Your task to perform on an android device: Open location settings Image 0: 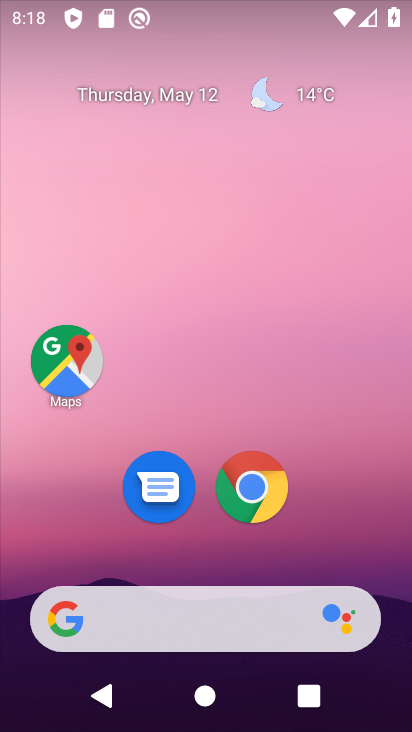
Step 0: press home button
Your task to perform on an android device: Open location settings Image 1: 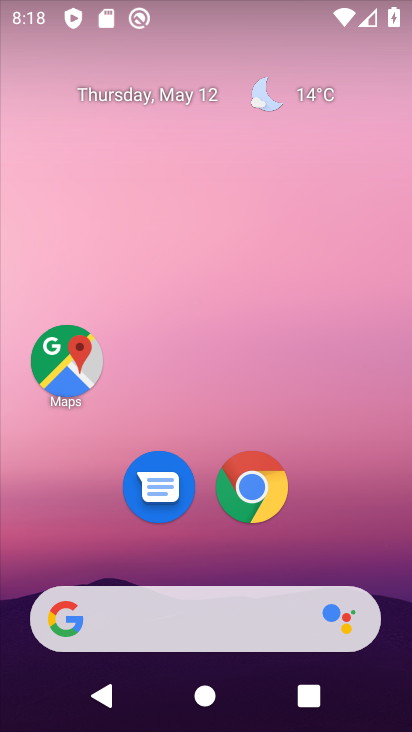
Step 1: drag from (2, 643) to (258, 192)
Your task to perform on an android device: Open location settings Image 2: 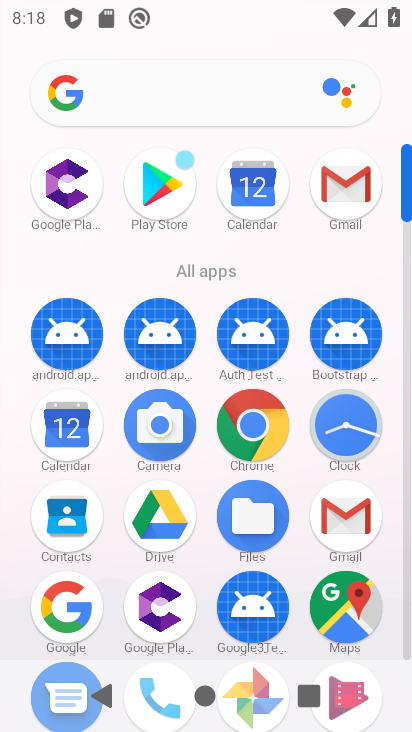
Step 2: drag from (6, 551) to (233, 186)
Your task to perform on an android device: Open location settings Image 3: 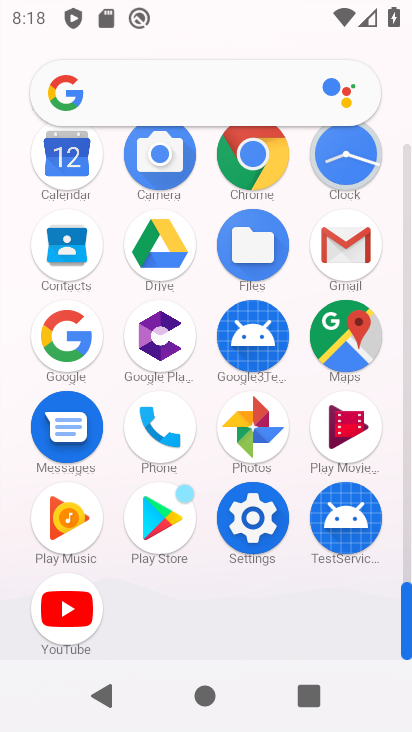
Step 3: click (270, 523)
Your task to perform on an android device: Open location settings Image 4: 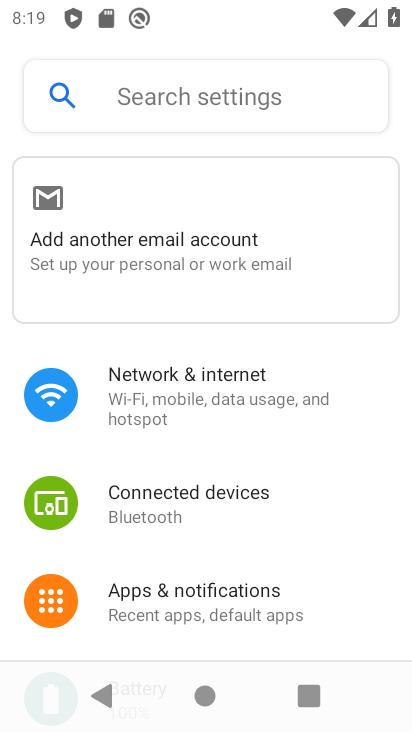
Step 4: drag from (1, 647) to (278, 252)
Your task to perform on an android device: Open location settings Image 5: 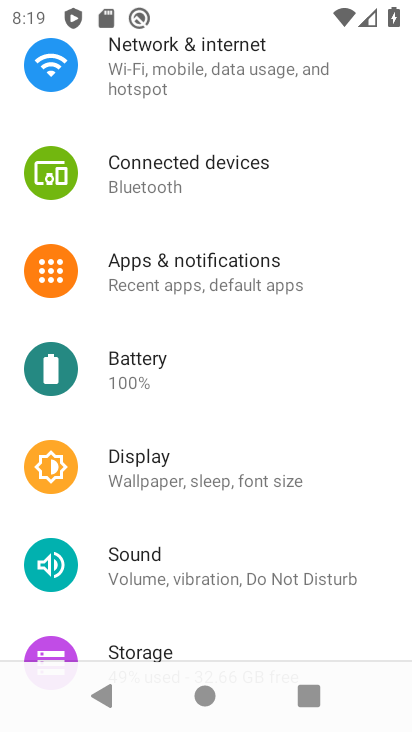
Step 5: drag from (34, 526) to (223, 227)
Your task to perform on an android device: Open location settings Image 6: 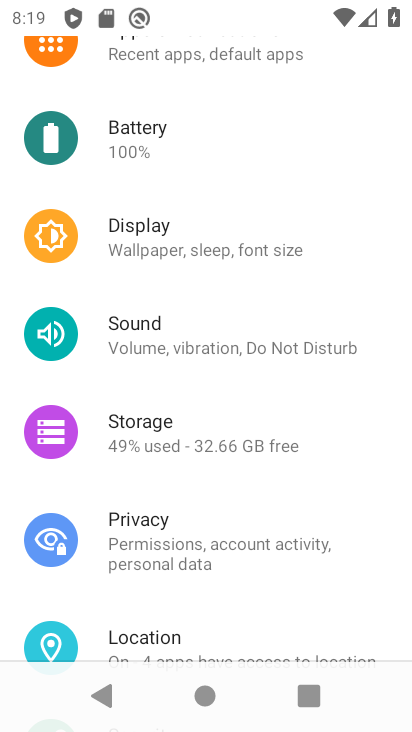
Step 6: click (126, 628)
Your task to perform on an android device: Open location settings Image 7: 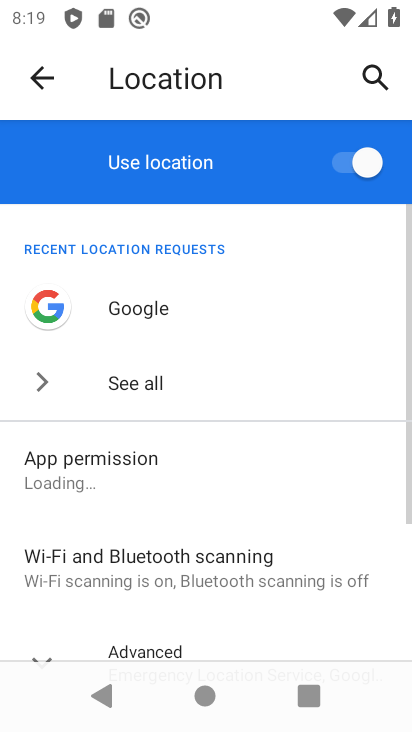
Step 7: drag from (15, 540) to (265, 198)
Your task to perform on an android device: Open location settings Image 8: 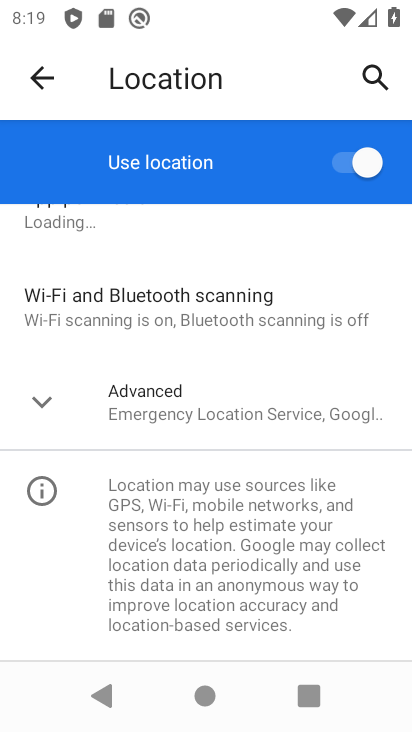
Step 8: click (198, 399)
Your task to perform on an android device: Open location settings Image 9: 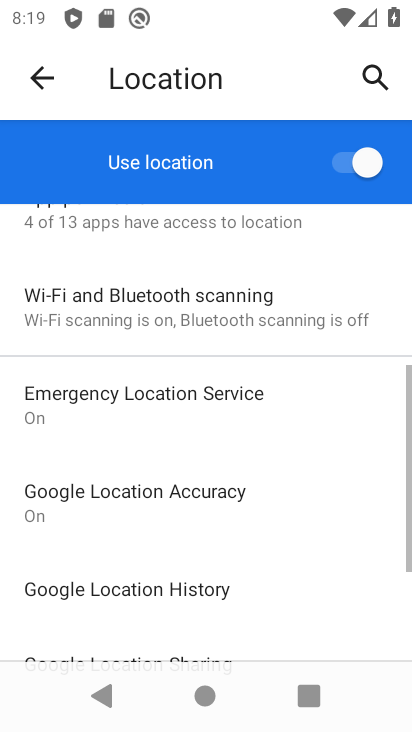
Step 9: task complete